Your task to perform on an android device: allow cookies in the chrome app Image 0: 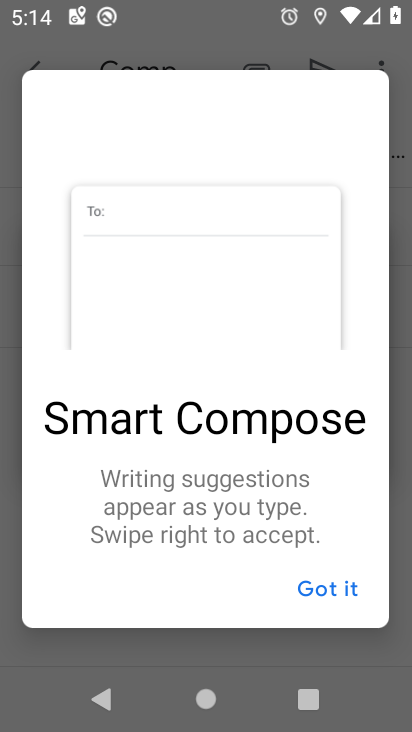
Step 0: press home button
Your task to perform on an android device: allow cookies in the chrome app Image 1: 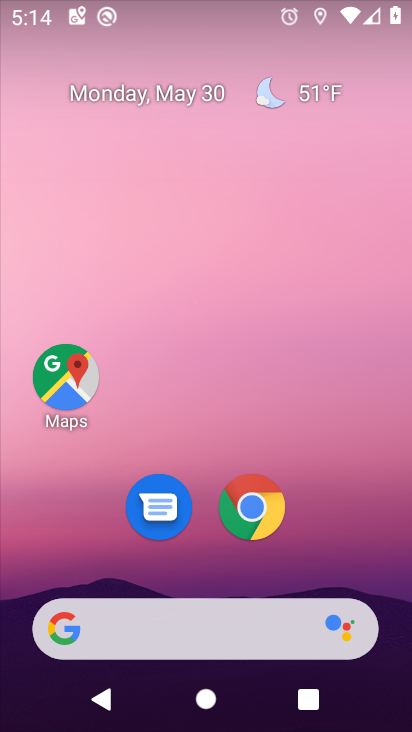
Step 1: drag from (362, 550) to (335, 35)
Your task to perform on an android device: allow cookies in the chrome app Image 2: 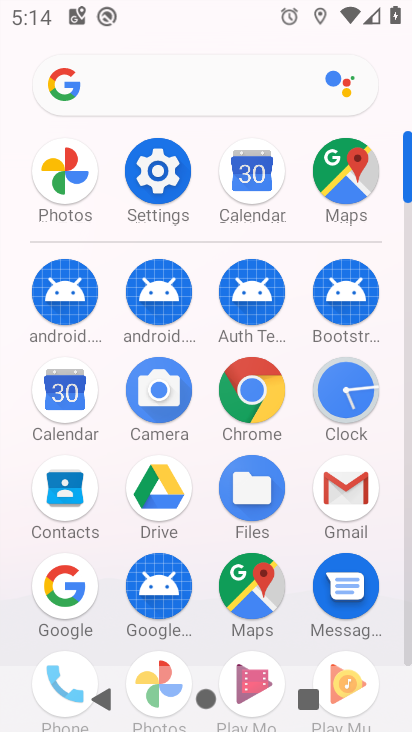
Step 2: click (279, 357)
Your task to perform on an android device: allow cookies in the chrome app Image 3: 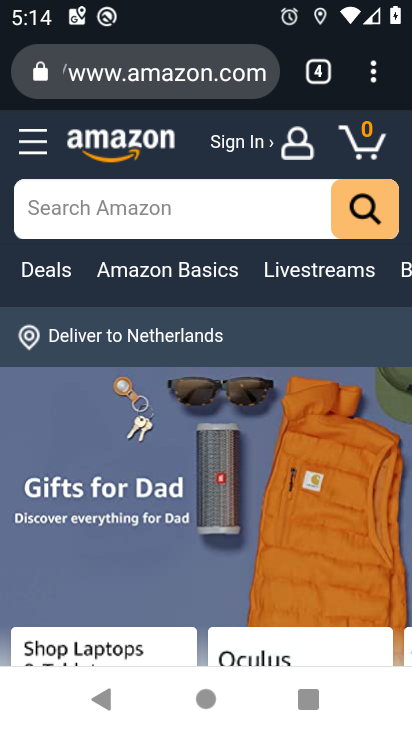
Step 3: drag from (375, 58) to (164, 554)
Your task to perform on an android device: allow cookies in the chrome app Image 4: 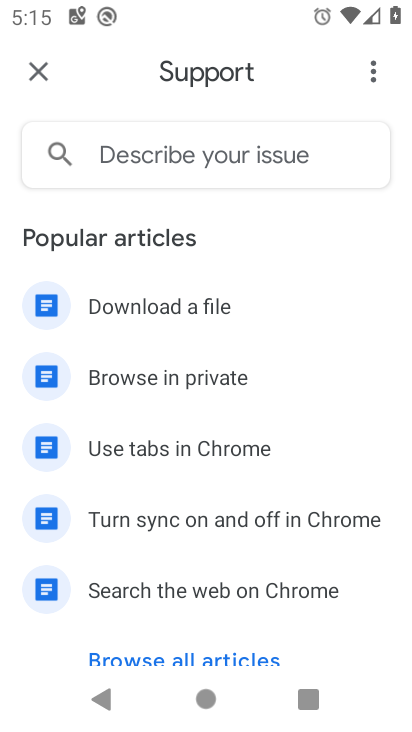
Step 4: click (32, 73)
Your task to perform on an android device: allow cookies in the chrome app Image 5: 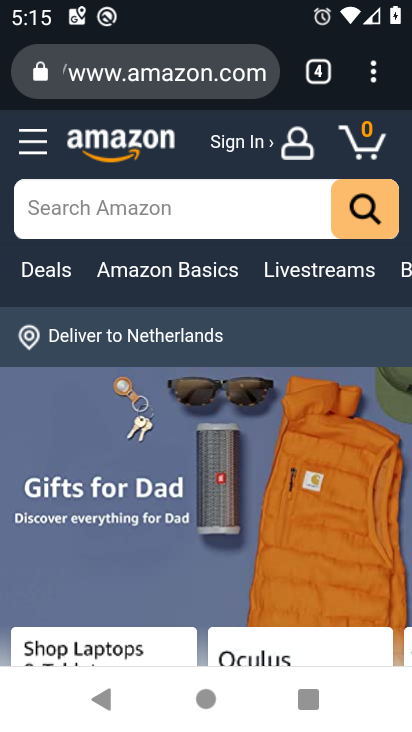
Step 5: drag from (379, 45) to (154, 505)
Your task to perform on an android device: allow cookies in the chrome app Image 6: 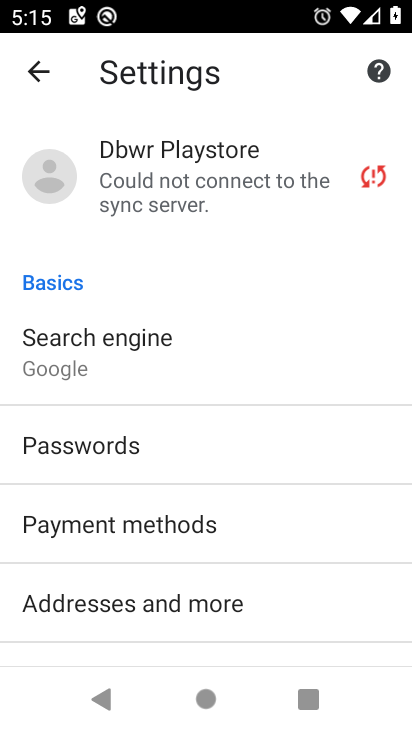
Step 6: drag from (259, 634) to (268, 218)
Your task to perform on an android device: allow cookies in the chrome app Image 7: 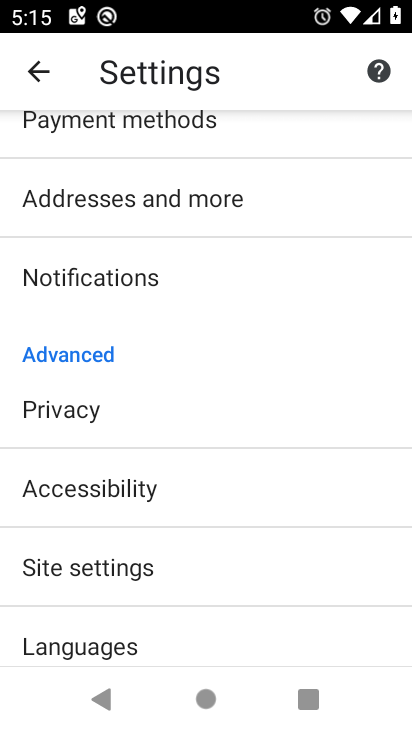
Step 7: drag from (170, 604) to (208, 282)
Your task to perform on an android device: allow cookies in the chrome app Image 8: 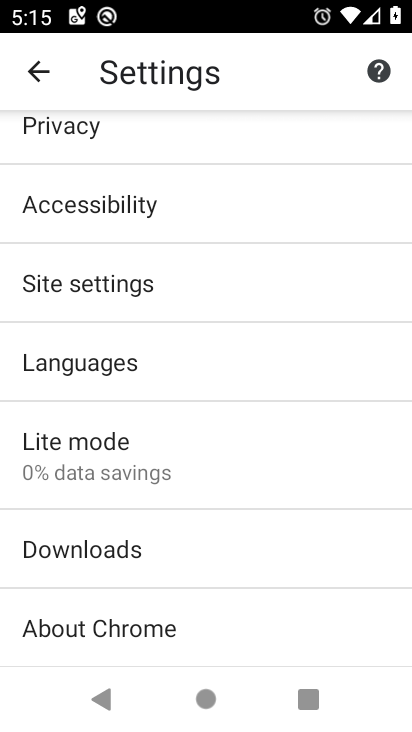
Step 8: click (135, 267)
Your task to perform on an android device: allow cookies in the chrome app Image 9: 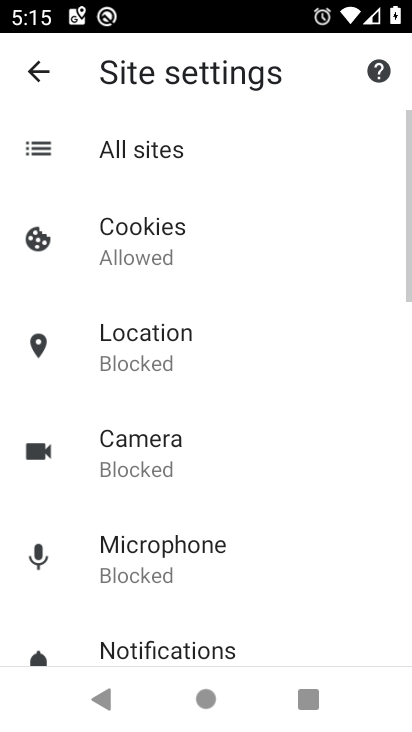
Step 9: click (160, 233)
Your task to perform on an android device: allow cookies in the chrome app Image 10: 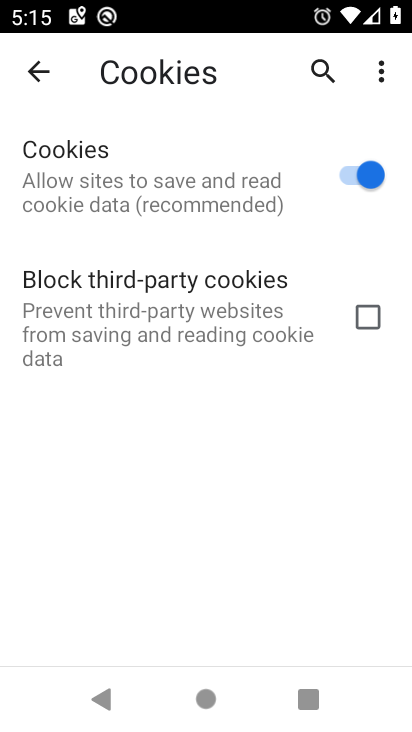
Step 10: task complete